Your task to perform on an android device: Toggle the flashlight Image 0: 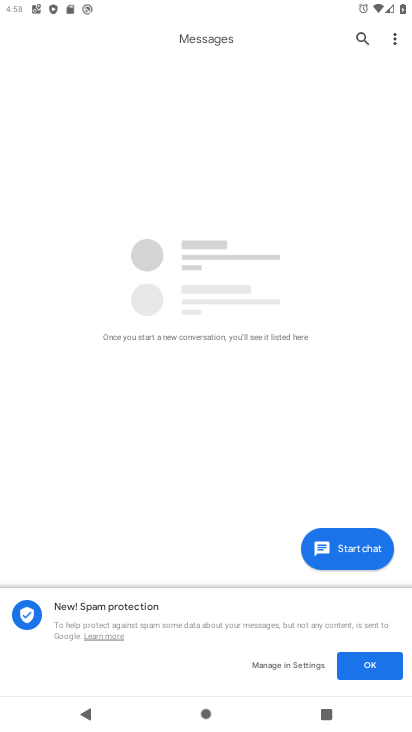
Step 0: press home button
Your task to perform on an android device: Toggle the flashlight Image 1: 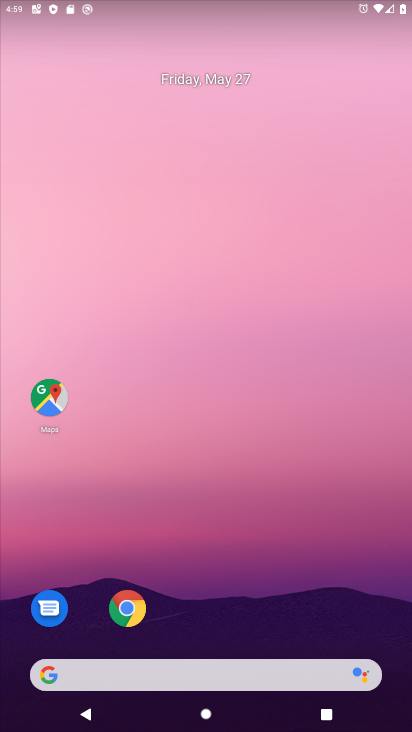
Step 1: drag from (217, 27) to (273, 663)
Your task to perform on an android device: Toggle the flashlight Image 2: 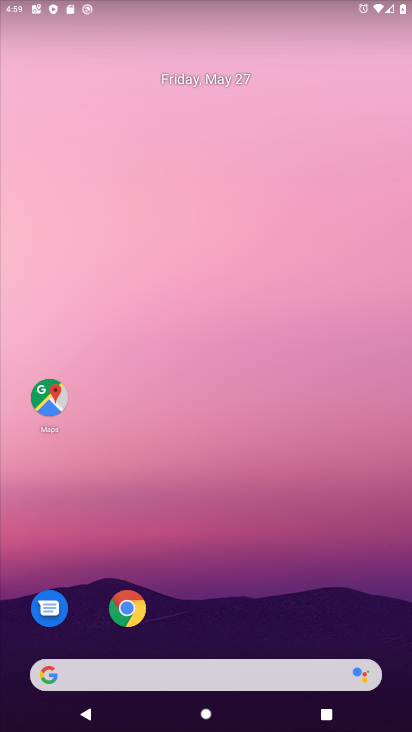
Step 2: drag from (241, 8) to (275, 480)
Your task to perform on an android device: Toggle the flashlight Image 3: 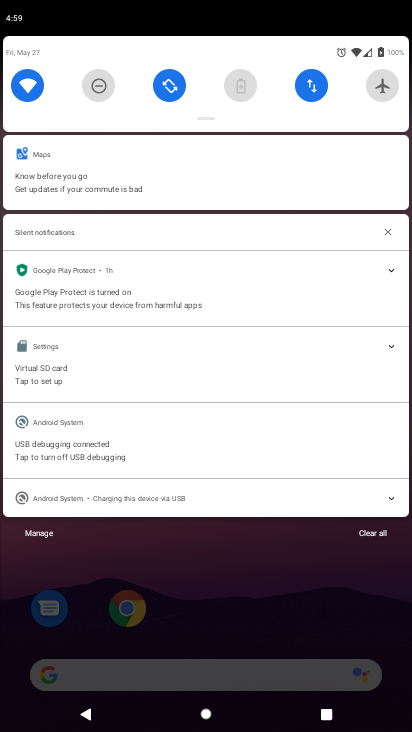
Step 3: drag from (253, 86) to (288, 536)
Your task to perform on an android device: Toggle the flashlight Image 4: 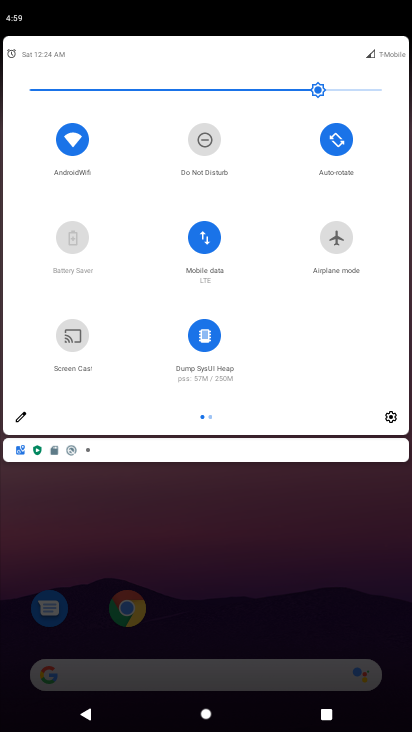
Step 4: drag from (341, 298) to (9, 416)
Your task to perform on an android device: Toggle the flashlight Image 5: 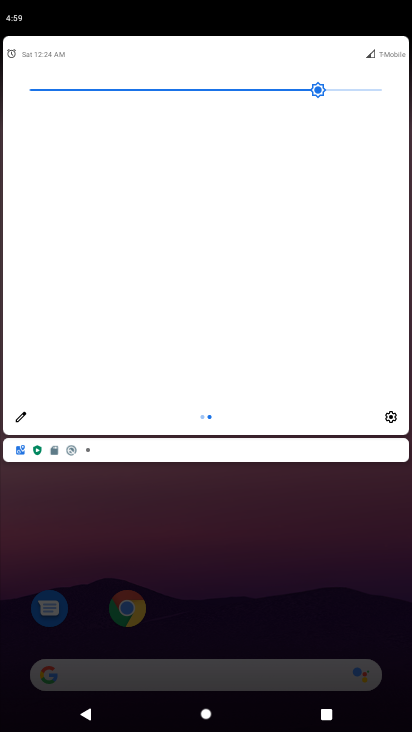
Step 5: click (23, 414)
Your task to perform on an android device: Toggle the flashlight Image 6: 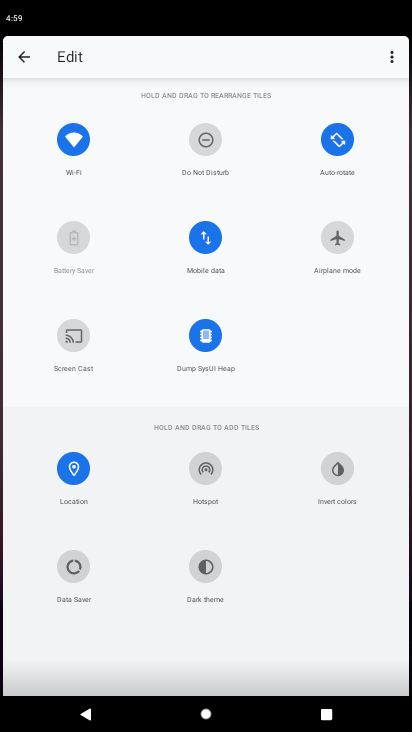
Step 6: task complete